Your task to perform on an android device: Open ESPN.com Image 0: 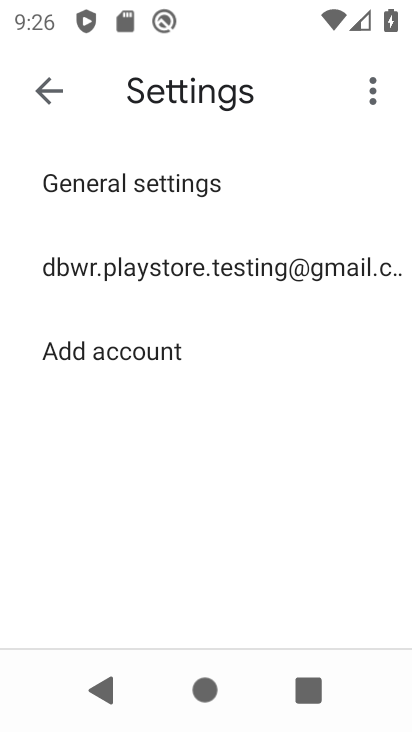
Step 0: press home button
Your task to perform on an android device: Open ESPN.com Image 1: 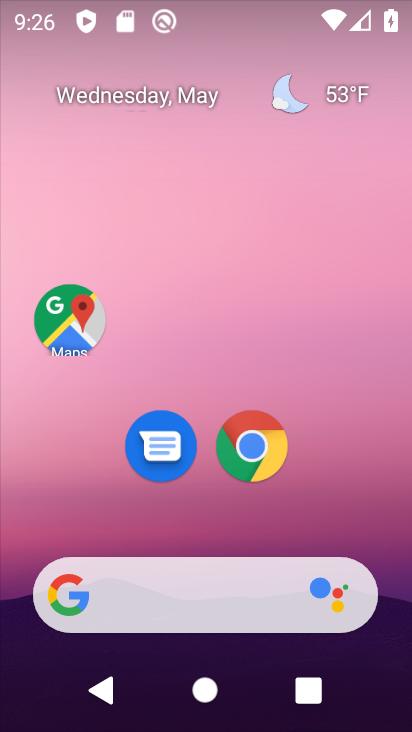
Step 1: click (253, 458)
Your task to perform on an android device: Open ESPN.com Image 2: 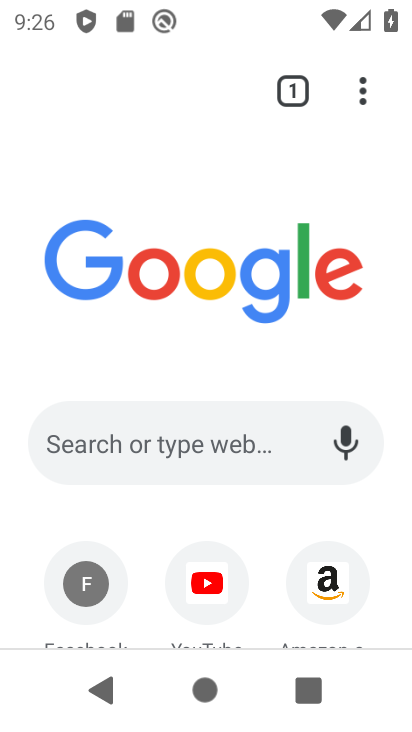
Step 2: click (164, 440)
Your task to perform on an android device: Open ESPN.com Image 3: 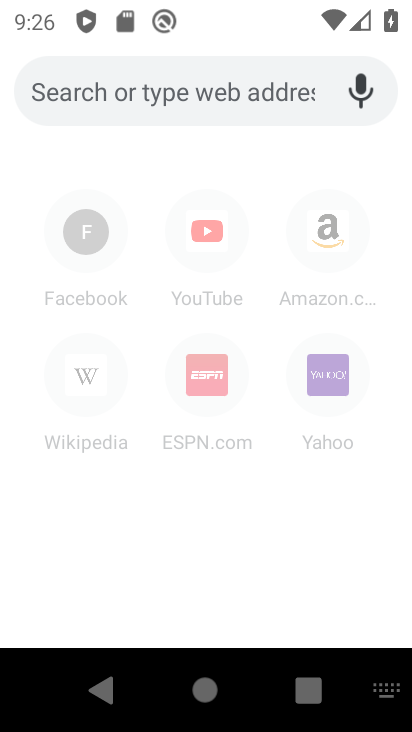
Step 3: type "espn.com"
Your task to perform on an android device: Open ESPN.com Image 4: 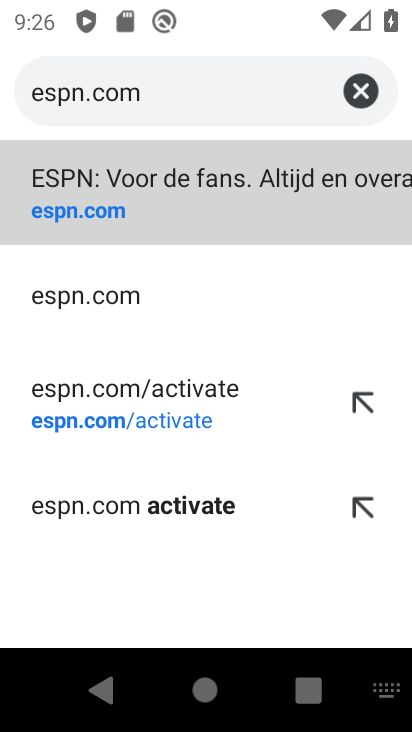
Step 4: click (185, 199)
Your task to perform on an android device: Open ESPN.com Image 5: 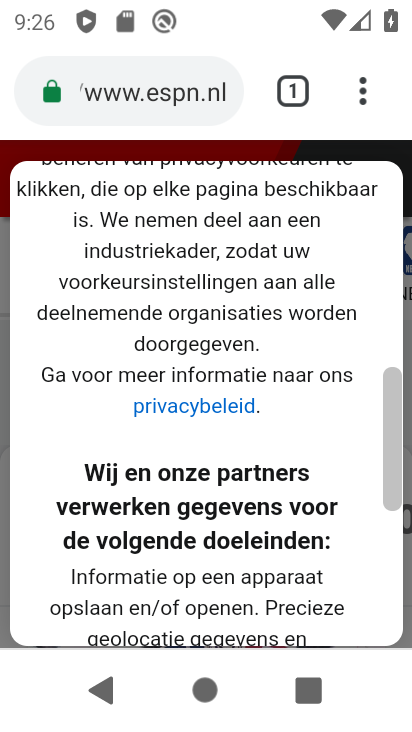
Step 5: task complete